Your task to perform on an android device: add a label to a message in the gmail app Image 0: 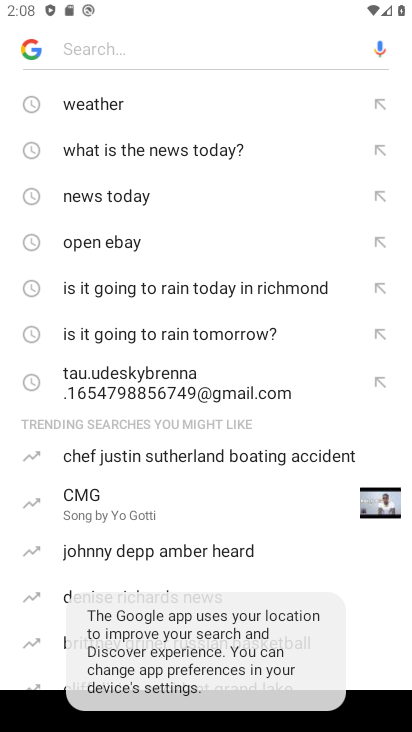
Step 0: press back button
Your task to perform on an android device: add a label to a message in the gmail app Image 1: 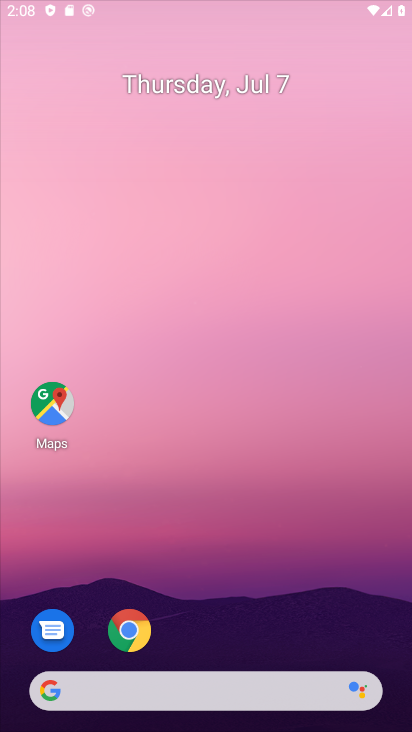
Step 1: press home button
Your task to perform on an android device: add a label to a message in the gmail app Image 2: 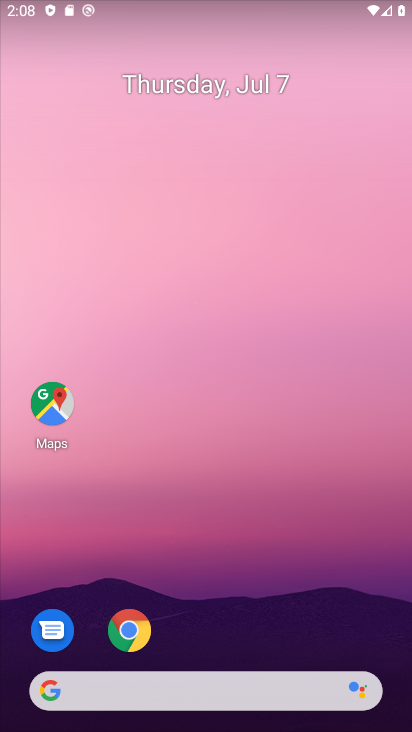
Step 2: drag from (242, 689) to (47, 45)
Your task to perform on an android device: add a label to a message in the gmail app Image 3: 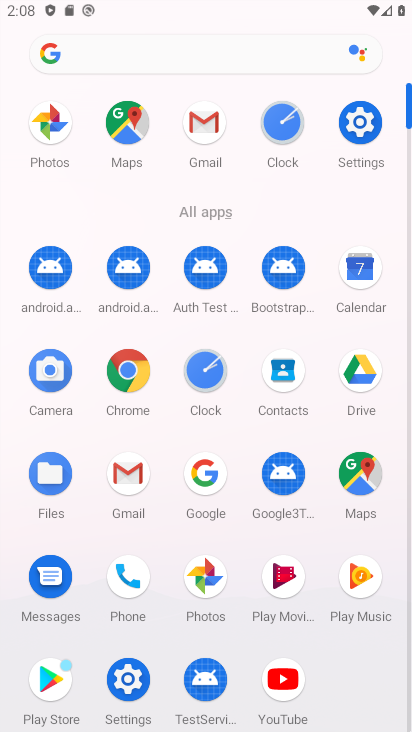
Step 3: click (133, 470)
Your task to perform on an android device: add a label to a message in the gmail app Image 4: 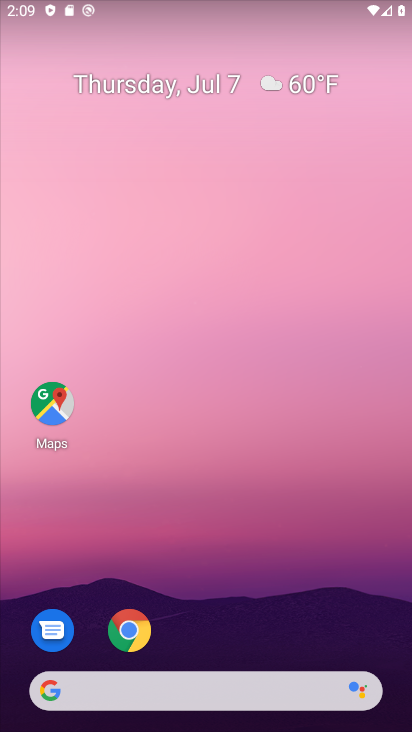
Step 4: drag from (288, 590) to (227, 115)
Your task to perform on an android device: add a label to a message in the gmail app Image 5: 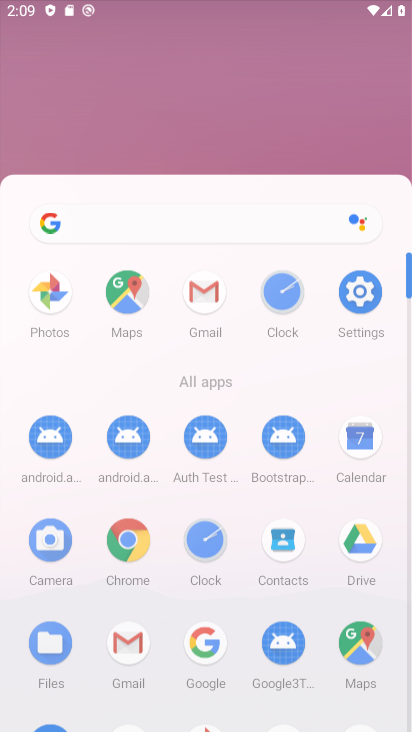
Step 5: drag from (207, 536) to (261, 0)
Your task to perform on an android device: add a label to a message in the gmail app Image 6: 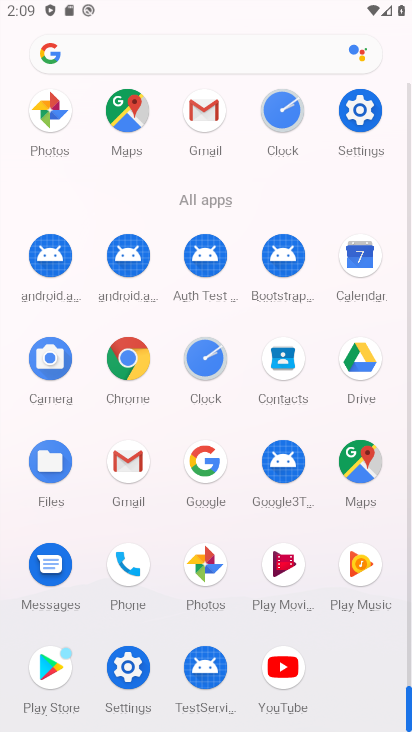
Step 6: click (127, 464)
Your task to perform on an android device: add a label to a message in the gmail app Image 7: 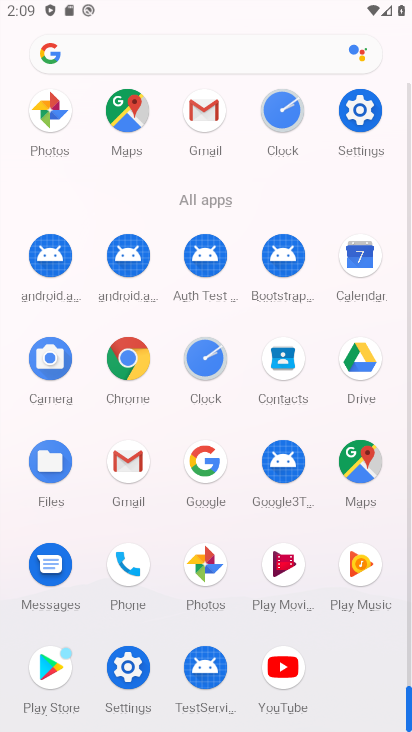
Step 7: click (126, 463)
Your task to perform on an android device: add a label to a message in the gmail app Image 8: 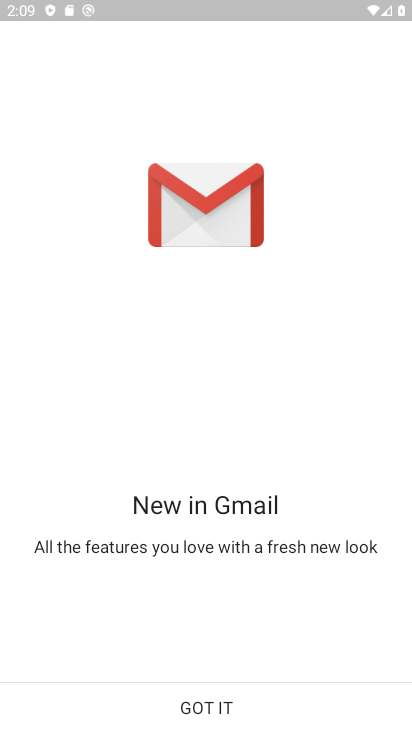
Step 8: click (203, 715)
Your task to perform on an android device: add a label to a message in the gmail app Image 9: 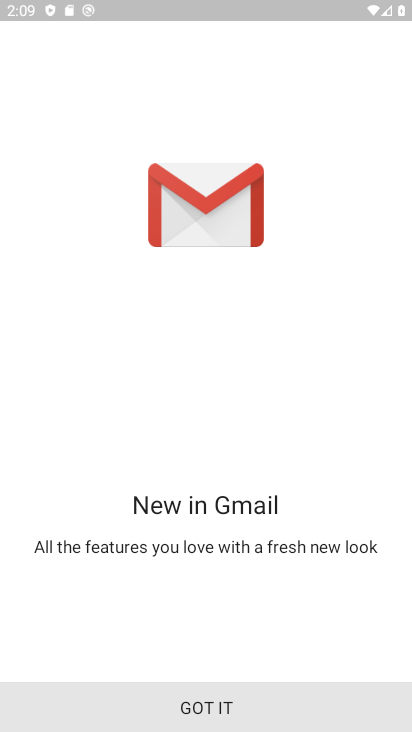
Step 9: click (212, 695)
Your task to perform on an android device: add a label to a message in the gmail app Image 10: 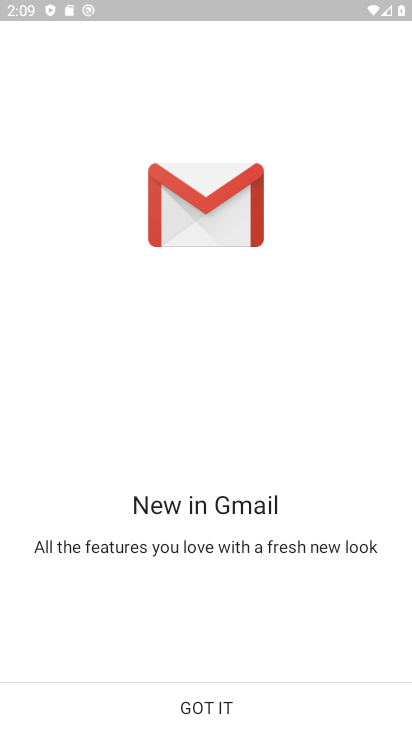
Step 10: click (209, 698)
Your task to perform on an android device: add a label to a message in the gmail app Image 11: 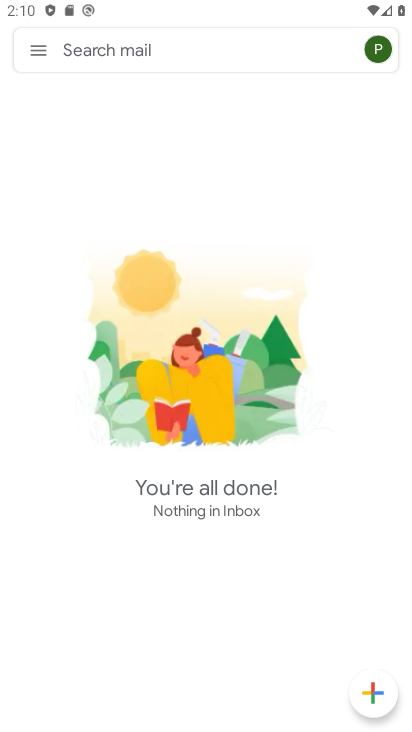
Step 11: click (35, 58)
Your task to perform on an android device: add a label to a message in the gmail app Image 12: 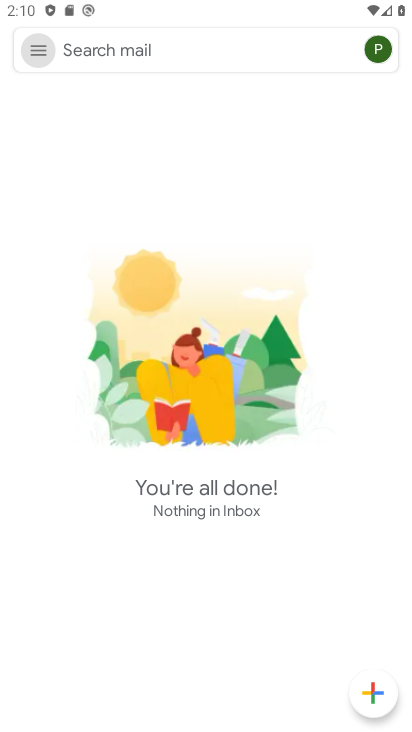
Step 12: click (34, 57)
Your task to perform on an android device: add a label to a message in the gmail app Image 13: 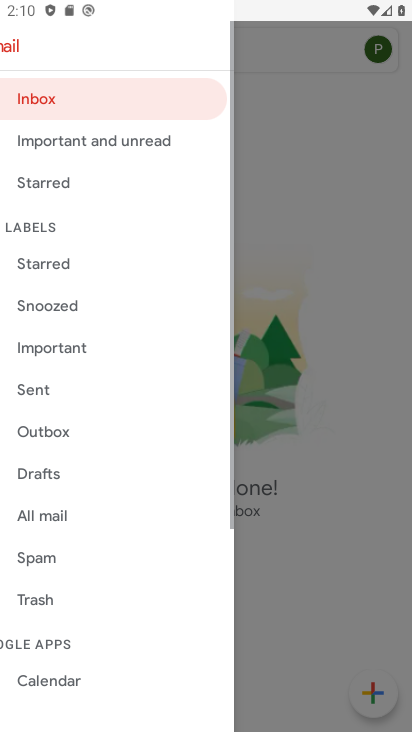
Step 13: click (33, 58)
Your task to perform on an android device: add a label to a message in the gmail app Image 14: 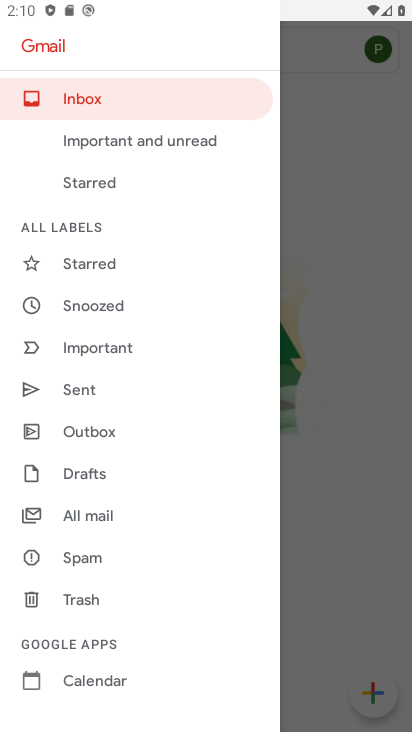
Step 14: click (94, 520)
Your task to perform on an android device: add a label to a message in the gmail app Image 15: 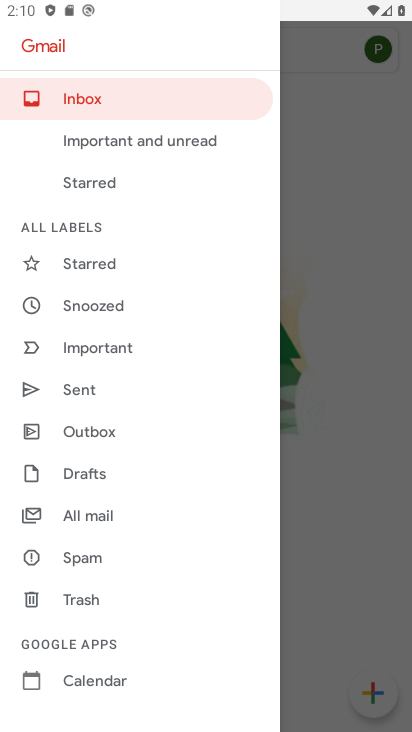
Step 15: click (94, 519)
Your task to perform on an android device: add a label to a message in the gmail app Image 16: 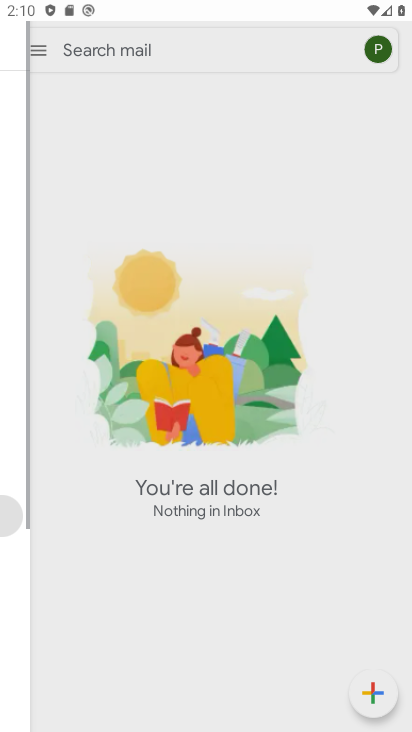
Step 16: click (95, 515)
Your task to perform on an android device: add a label to a message in the gmail app Image 17: 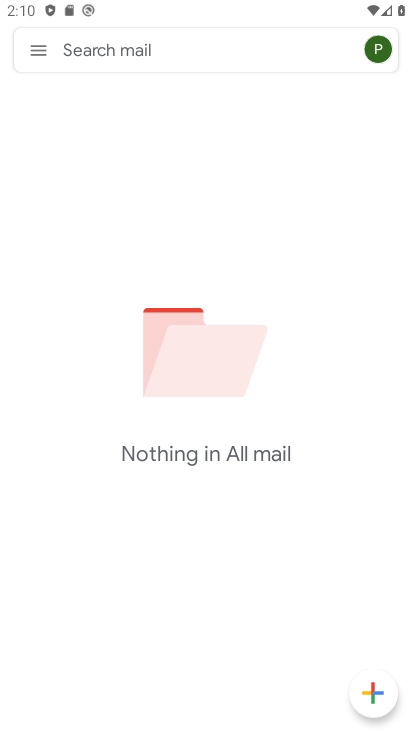
Step 17: task complete